Your task to perform on an android device: Search for "razer blade" on target.com, select the first entry, add it to the cart, then select checkout. Image 0: 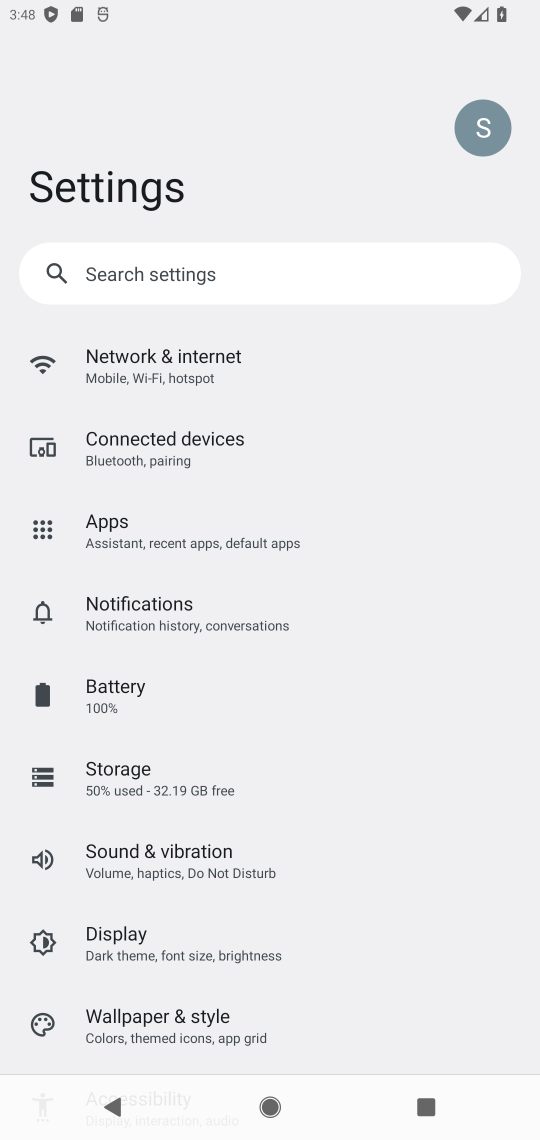
Step 0: press home button
Your task to perform on an android device: Search for "razer blade" on target.com, select the first entry, add it to the cart, then select checkout. Image 1: 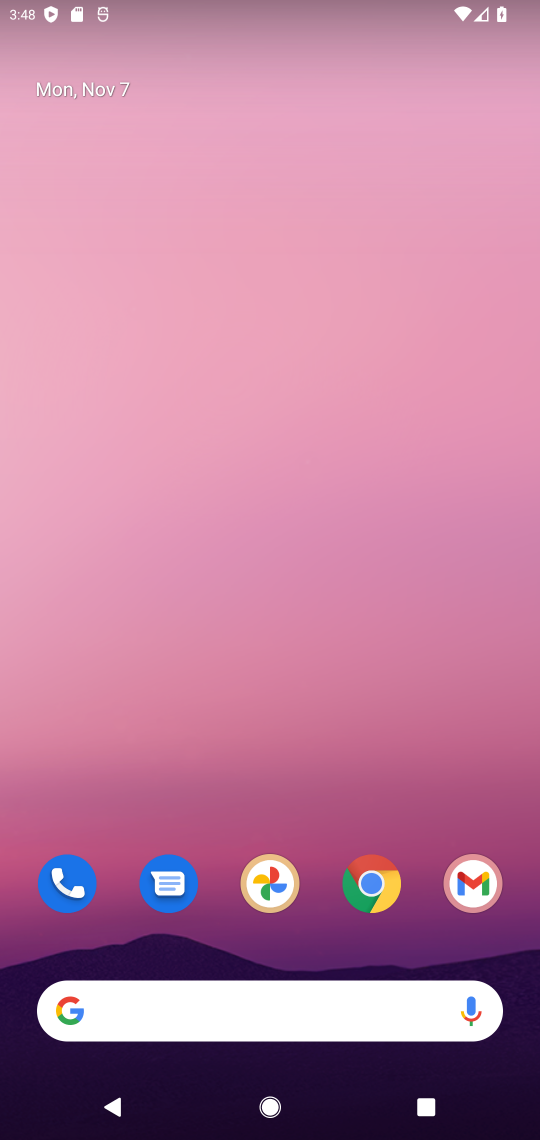
Step 1: click (379, 881)
Your task to perform on an android device: Search for "razer blade" on target.com, select the first entry, add it to the cart, then select checkout. Image 2: 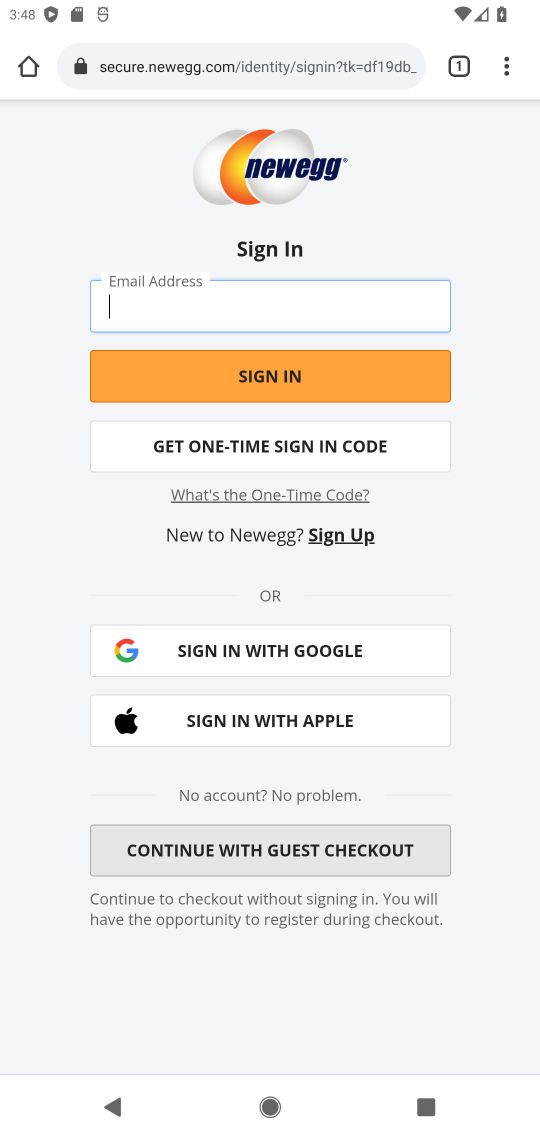
Step 2: click (296, 59)
Your task to perform on an android device: Search for "razer blade" on target.com, select the first entry, add it to the cart, then select checkout. Image 3: 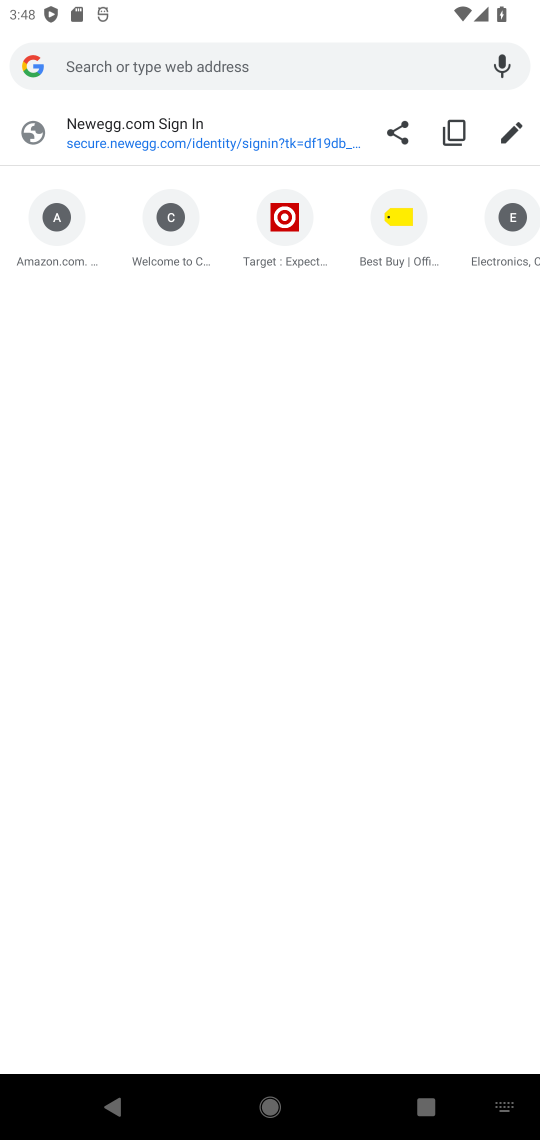
Step 3: click (262, 254)
Your task to perform on an android device: Search for "razer blade" on target.com, select the first entry, add it to the cart, then select checkout. Image 4: 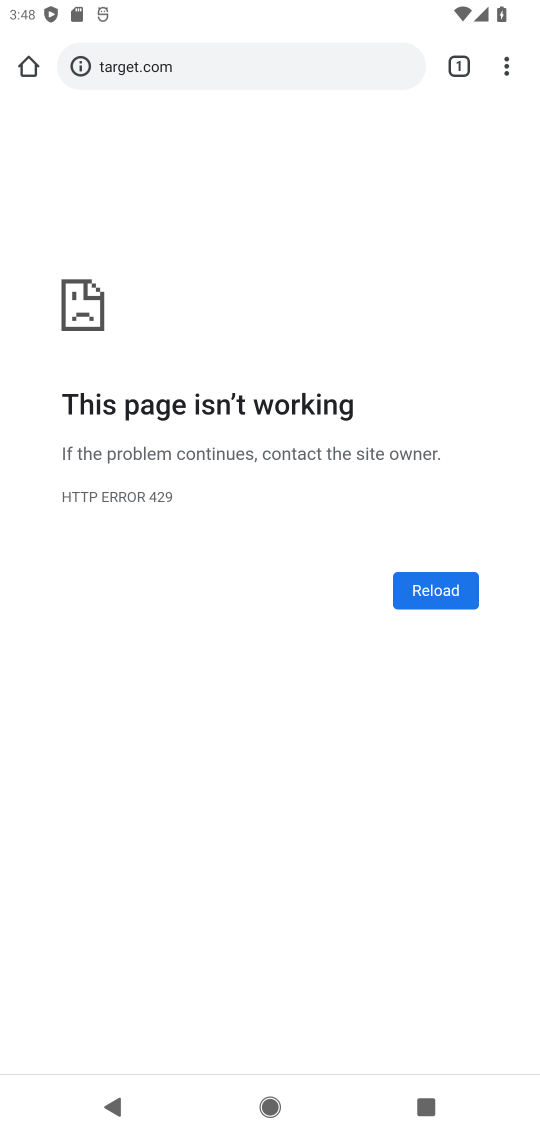
Step 4: click (448, 587)
Your task to perform on an android device: Search for "razer blade" on target.com, select the first entry, add it to the cart, then select checkout. Image 5: 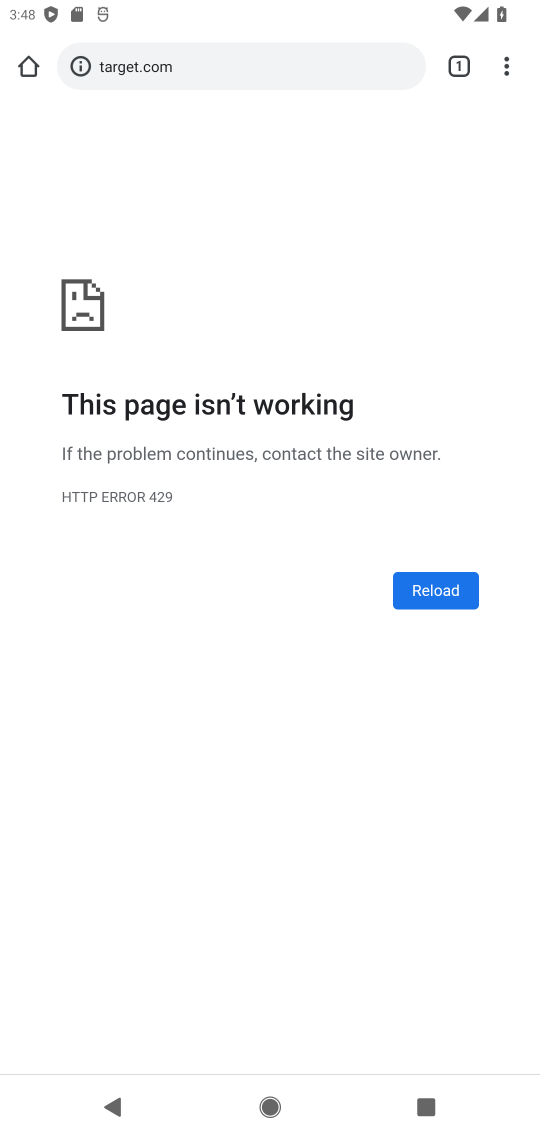
Step 5: click (235, 65)
Your task to perform on an android device: Search for "razer blade" on target.com, select the first entry, add it to the cart, then select checkout. Image 6: 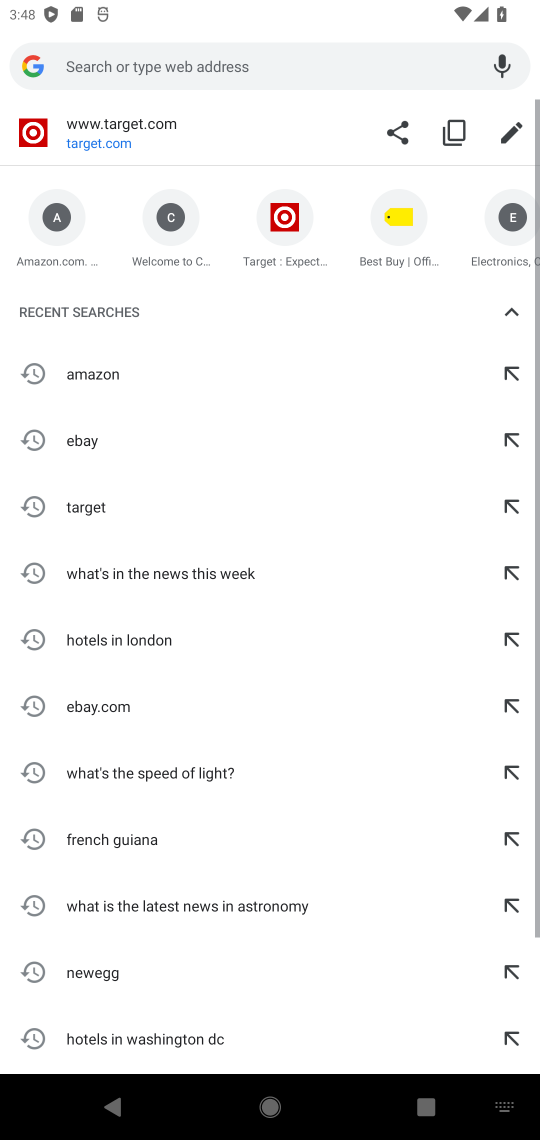
Step 6: click (283, 245)
Your task to perform on an android device: Search for "razer blade" on target.com, select the first entry, add it to the cart, then select checkout. Image 7: 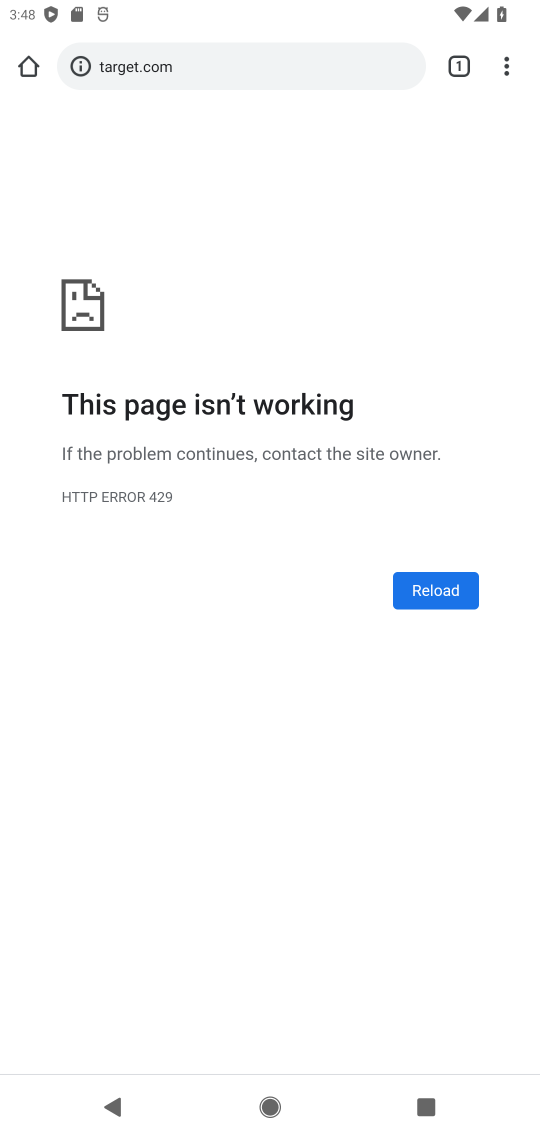
Step 7: click (168, 60)
Your task to perform on an android device: Search for "razer blade" on target.com, select the first entry, add it to the cart, then select checkout. Image 8: 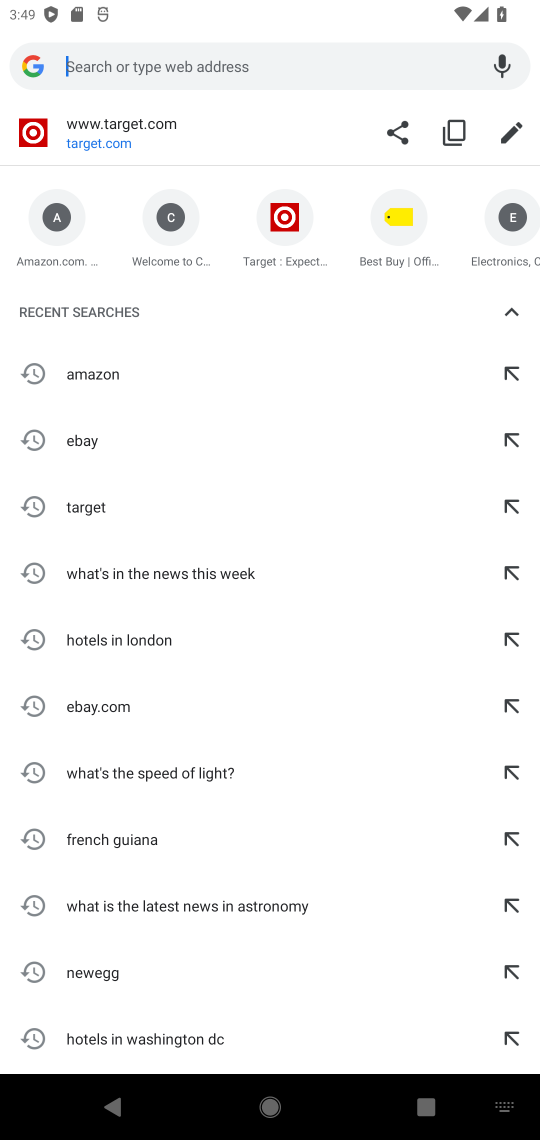
Step 8: type "target"
Your task to perform on an android device: Search for "razer blade" on target.com, select the first entry, add it to the cart, then select checkout. Image 9: 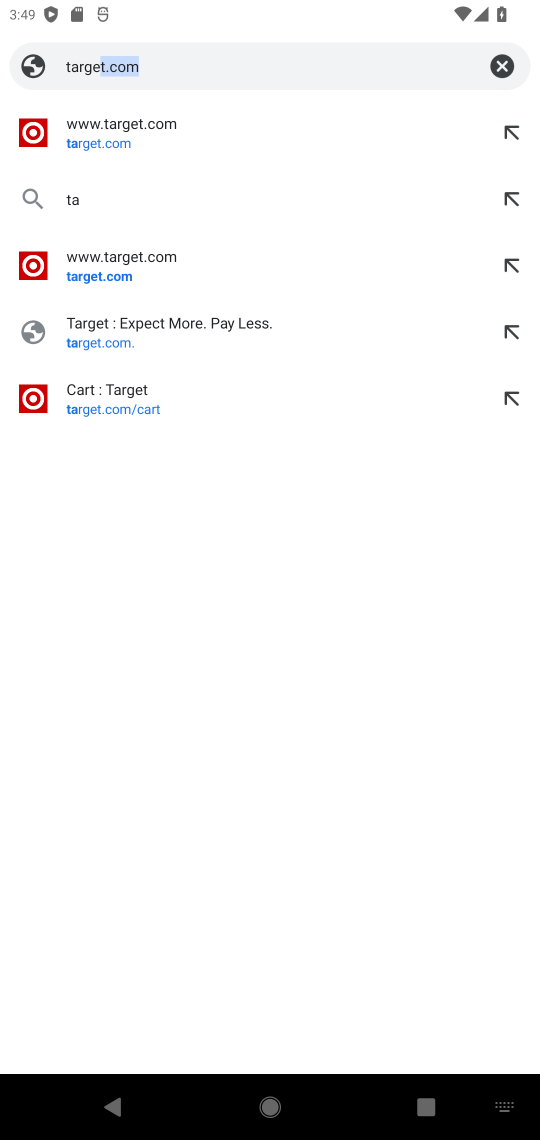
Step 9: press enter
Your task to perform on an android device: Search for "razer blade" on target.com, select the first entry, add it to the cart, then select checkout. Image 10: 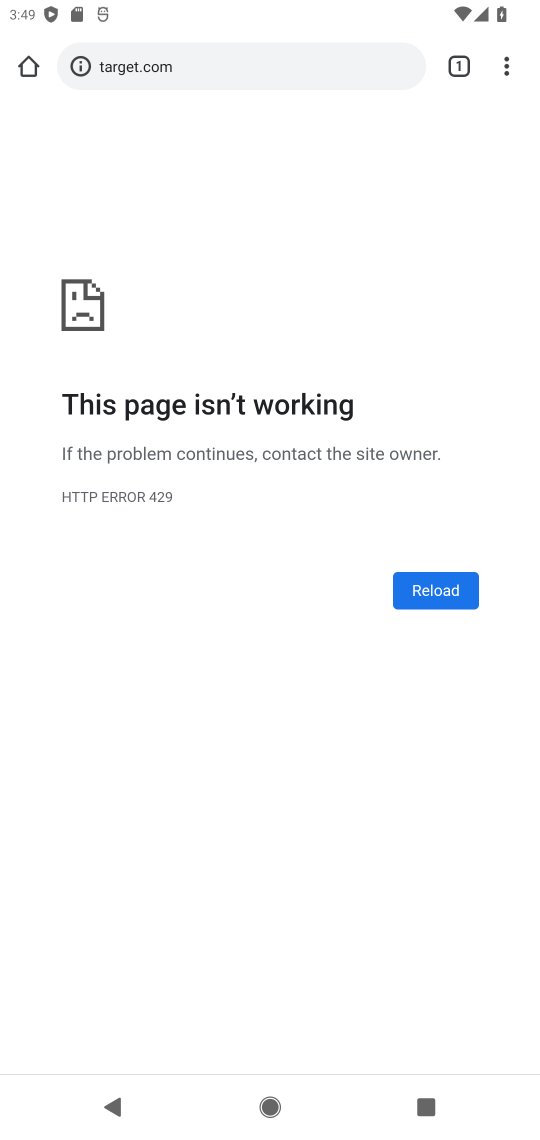
Step 10: click (447, 586)
Your task to perform on an android device: Search for "razer blade" on target.com, select the first entry, add it to the cart, then select checkout. Image 11: 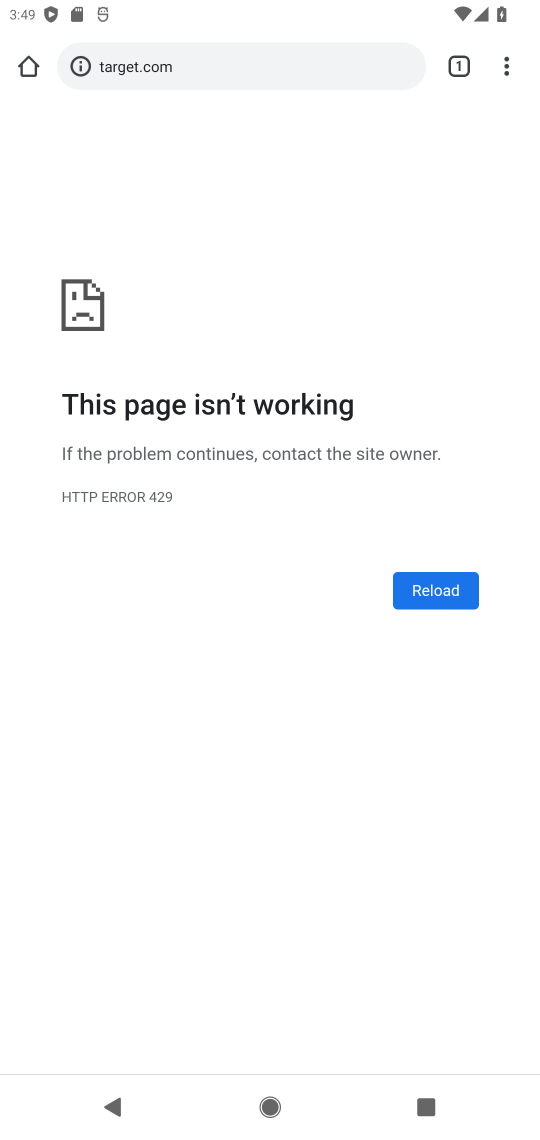
Step 11: click (428, 594)
Your task to perform on an android device: Search for "razer blade" on target.com, select the first entry, add it to the cart, then select checkout. Image 12: 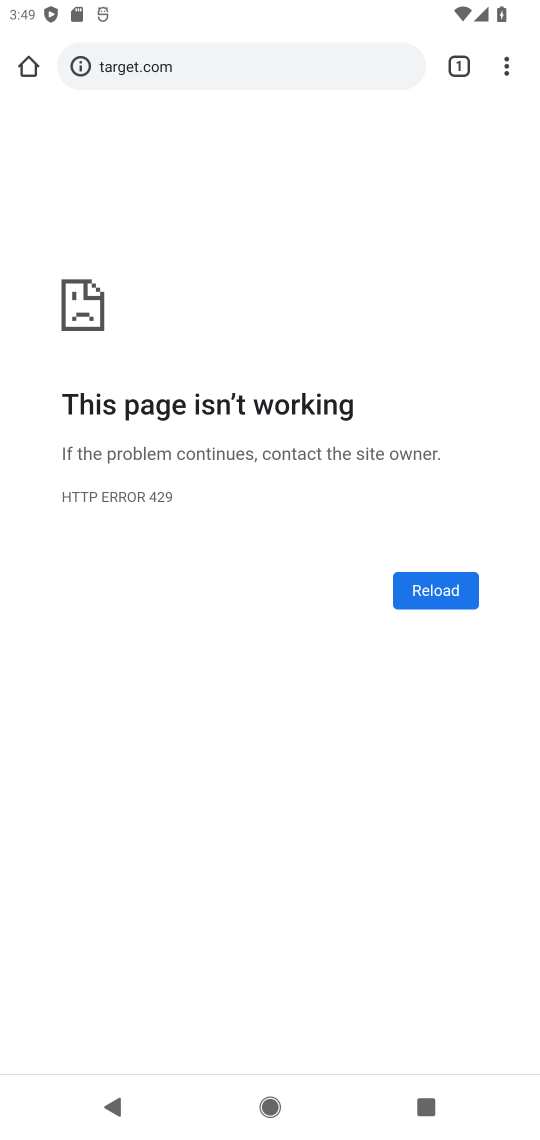
Step 12: click (428, 593)
Your task to perform on an android device: Search for "razer blade" on target.com, select the first entry, add it to the cart, then select checkout. Image 13: 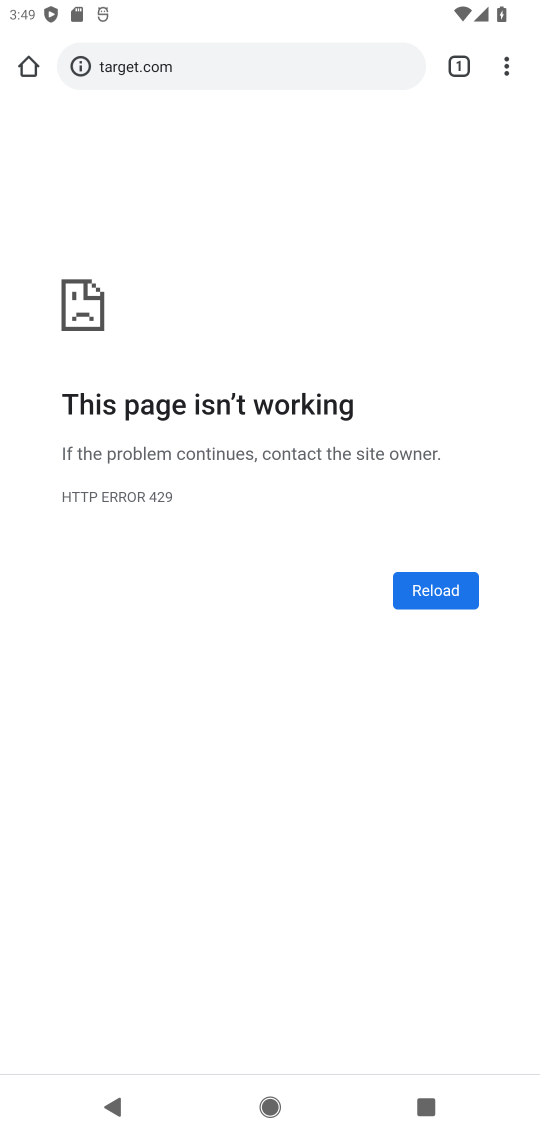
Step 13: click (319, 62)
Your task to perform on an android device: Search for "razer blade" on target.com, select the first entry, add it to the cart, then select checkout. Image 14: 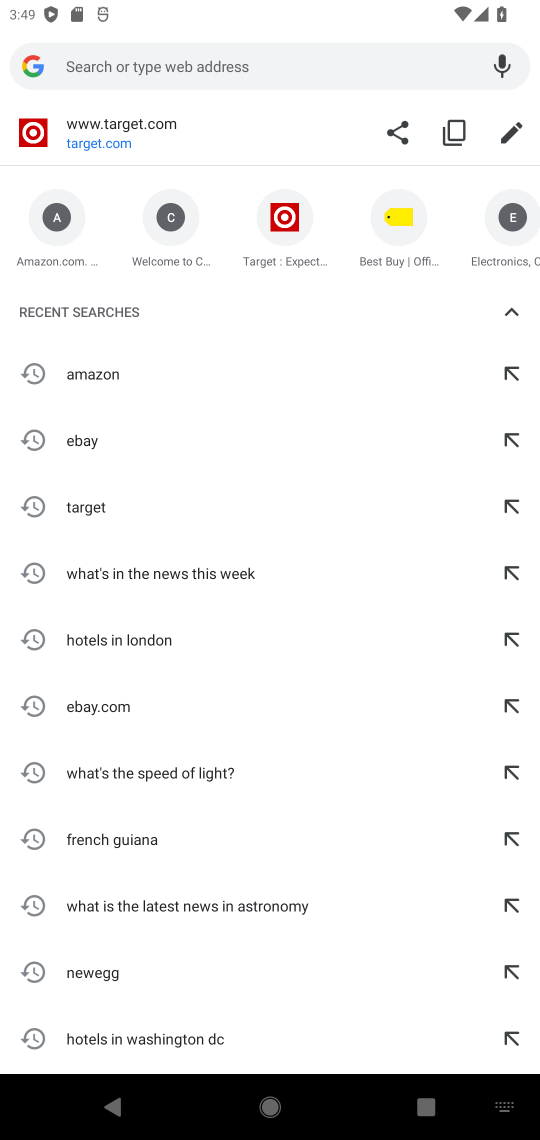
Step 14: click (289, 216)
Your task to perform on an android device: Search for "razer blade" on target.com, select the first entry, add it to the cart, then select checkout. Image 15: 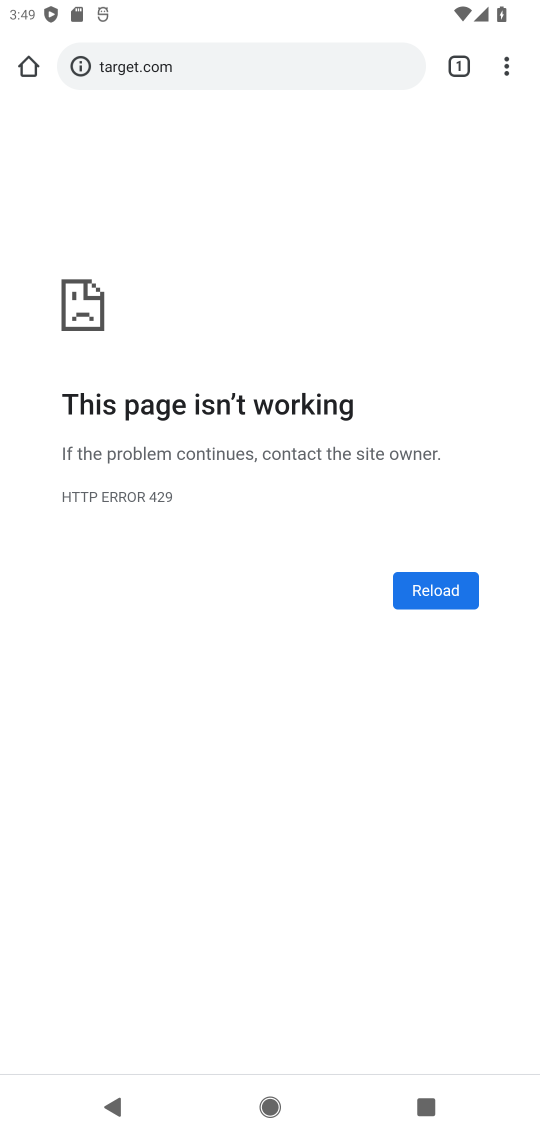
Step 15: task complete